Your task to perform on an android device: change alarm snooze length Image 0: 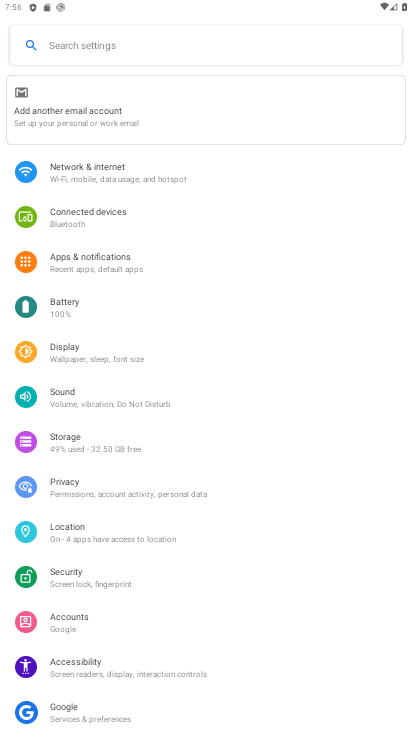
Step 0: press home button
Your task to perform on an android device: change alarm snooze length Image 1: 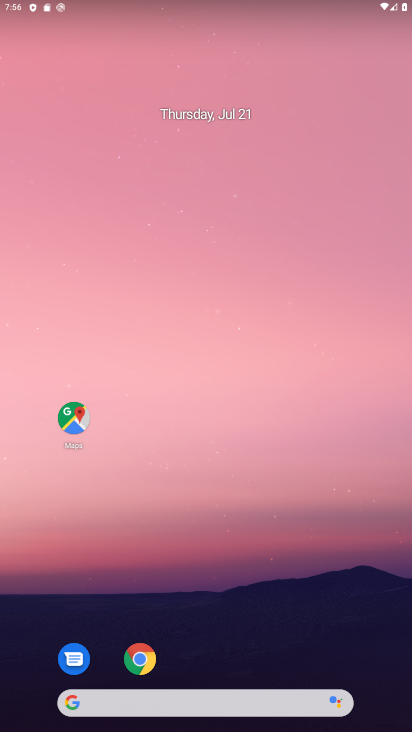
Step 1: drag from (229, 619) to (269, 222)
Your task to perform on an android device: change alarm snooze length Image 2: 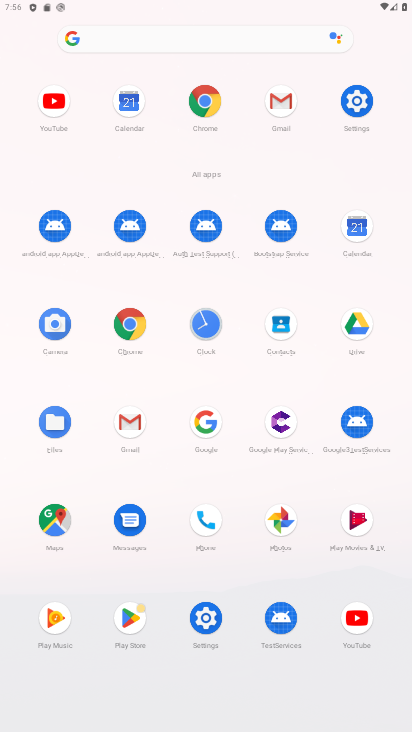
Step 2: click (197, 335)
Your task to perform on an android device: change alarm snooze length Image 3: 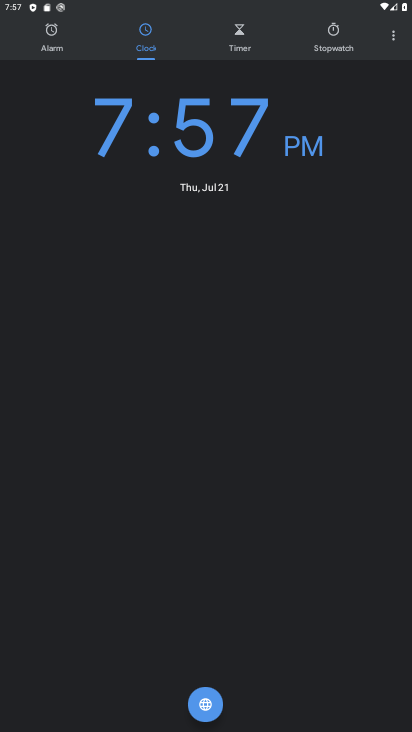
Step 3: click (398, 35)
Your task to perform on an android device: change alarm snooze length Image 4: 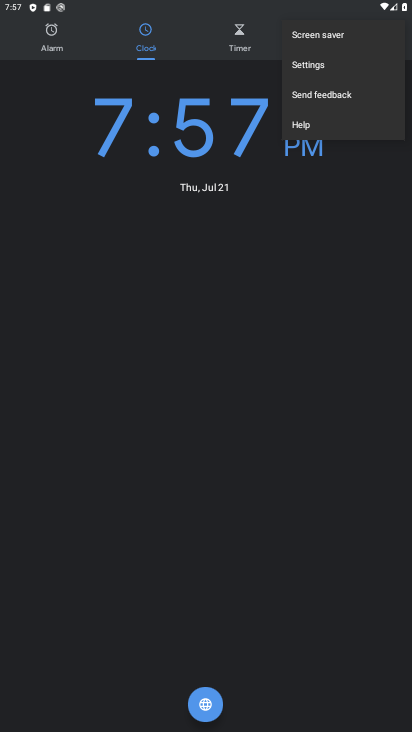
Step 4: click (341, 63)
Your task to perform on an android device: change alarm snooze length Image 5: 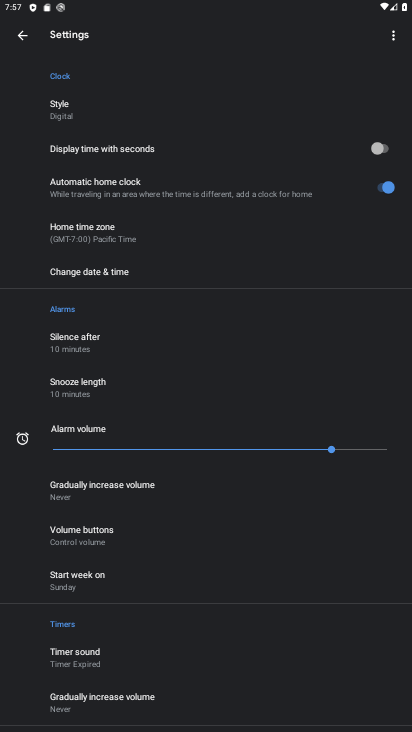
Step 5: click (121, 398)
Your task to perform on an android device: change alarm snooze length Image 6: 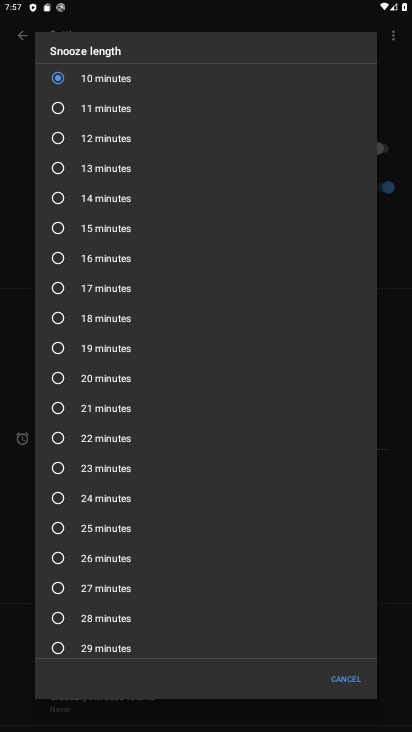
Step 6: click (113, 410)
Your task to perform on an android device: change alarm snooze length Image 7: 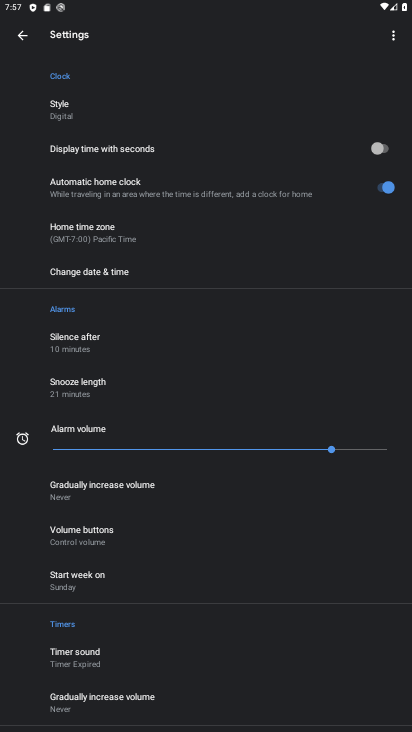
Step 7: task complete